Your task to perform on an android device: remove spam from my inbox in the gmail app Image 0: 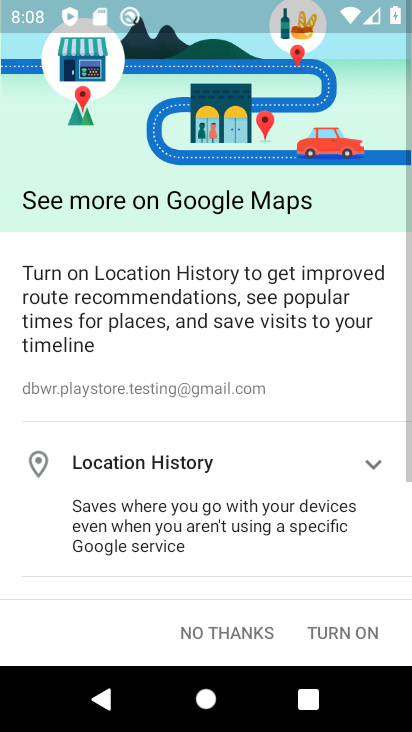
Step 0: press home button
Your task to perform on an android device: remove spam from my inbox in the gmail app Image 1: 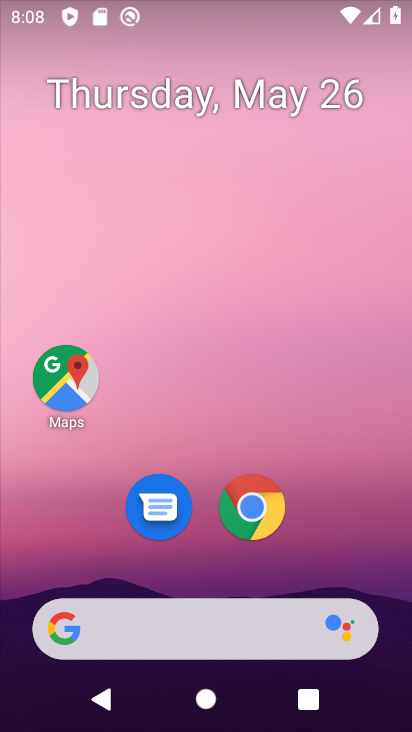
Step 1: drag from (192, 587) to (277, 153)
Your task to perform on an android device: remove spam from my inbox in the gmail app Image 2: 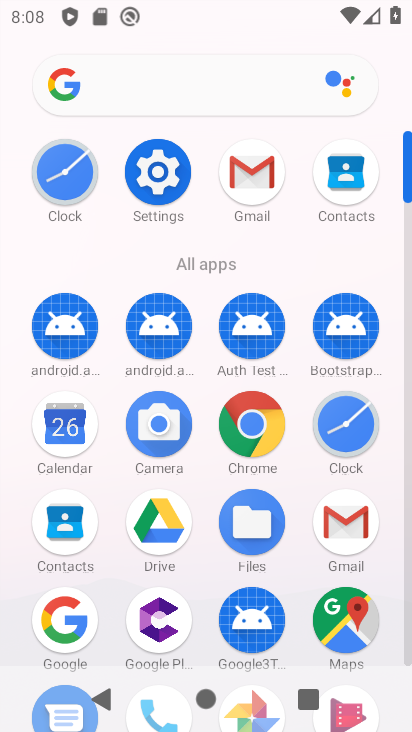
Step 2: click (256, 184)
Your task to perform on an android device: remove spam from my inbox in the gmail app Image 3: 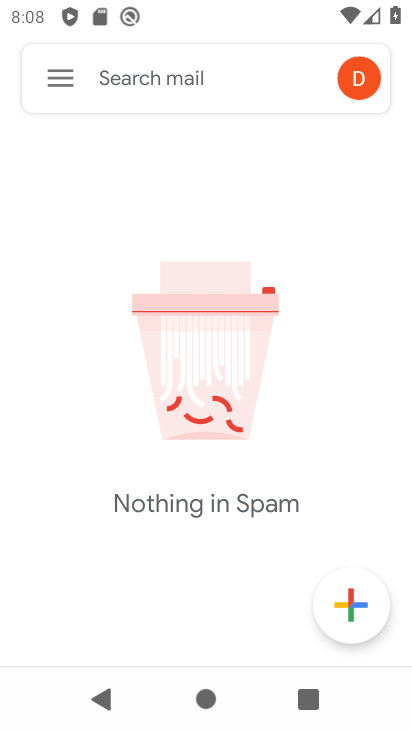
Step 3: task complete